Your task to perform on an android device: delete browsing data in the chrome app Image 0: 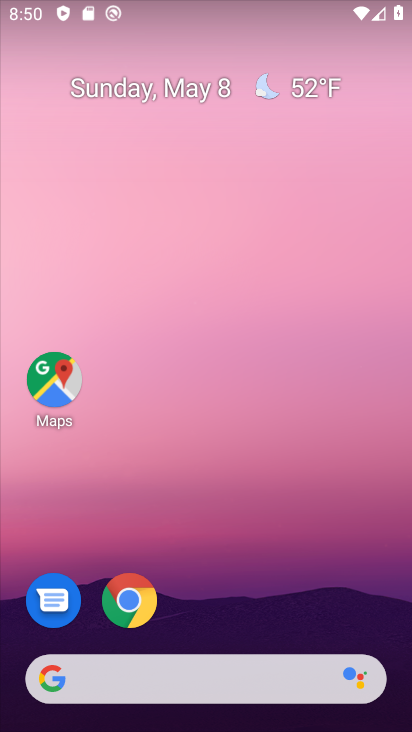
Step 0: press home button
Your task to perform on an android device: delete browsing data in the chrome app Image 1: 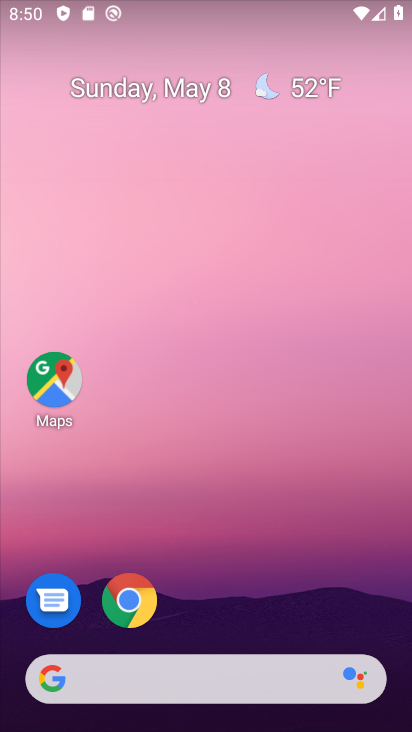
Step 1: click (131, 616)
Your task to perform on an android device: delete browsing data in the chrome app Image 2: 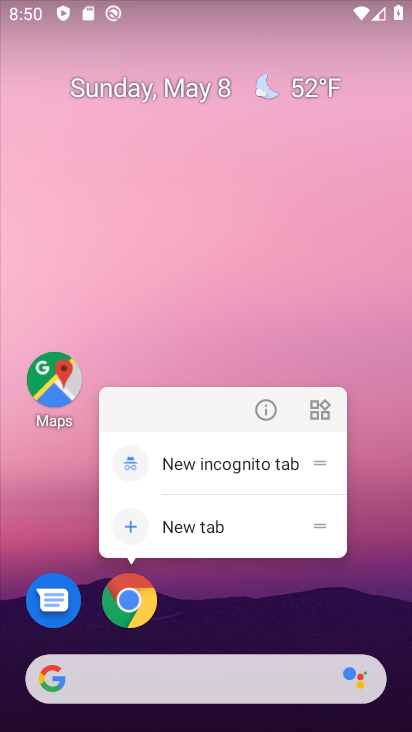
Step 2: click (134, 605)
Your task to perform on an android device: delete browsing data in the chrome app Image 3: 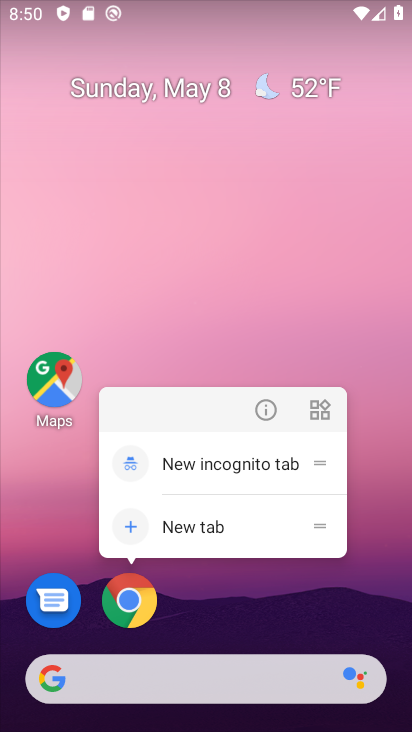
Step 3: click (129, 617)
Your task to perform on an android device: delete browsing data in the chrome app Image 4: 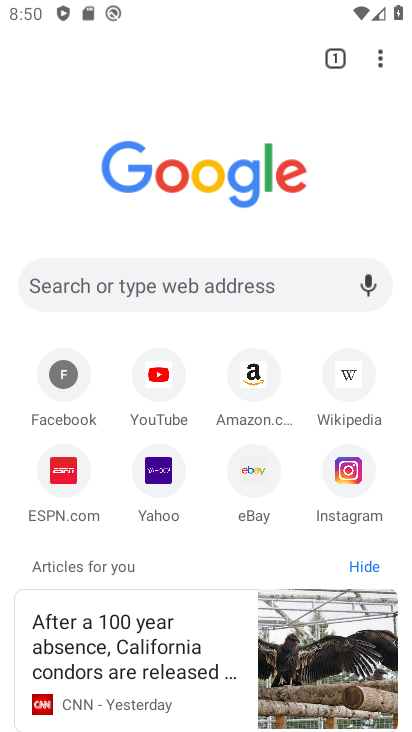
Step 4: drag from (381, 60) to (246, 339)
Your task to perform on an android device: delete browsing data in the chrome app Image 5: 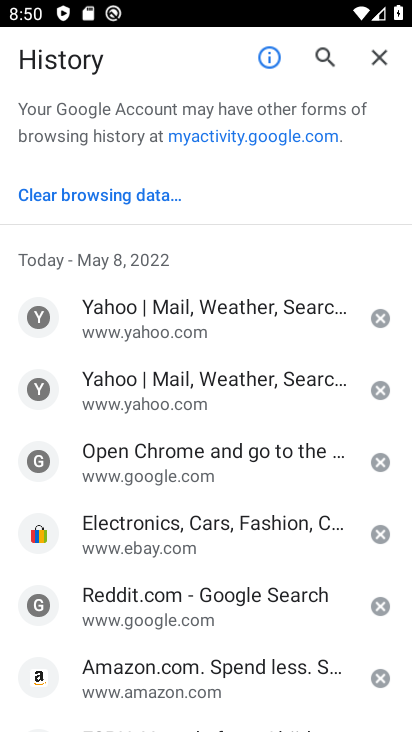
Step 5: click (140, 201)
Your task to perform on an android device: delete browsing data in the chrome app Image 6: 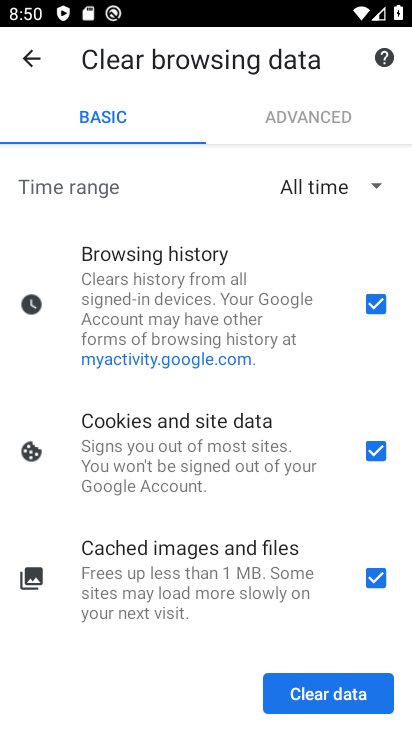
Step 6: click (370, 463)
Your task to perform on an android device: delete browsing data in the chrome app Image 7: 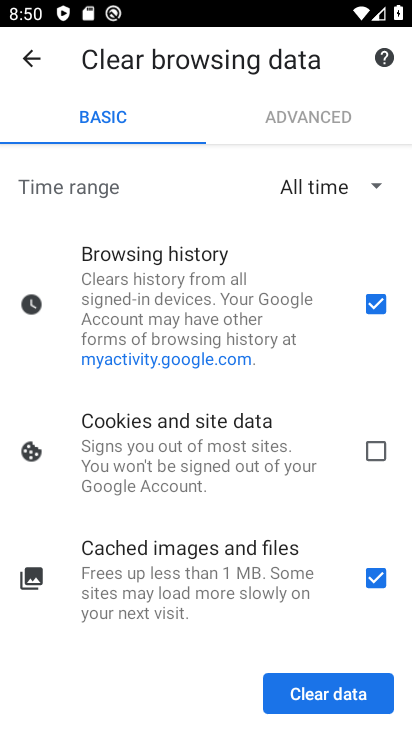
Step 7: click (370, 581)
Your task to perform on an android device: delete browsing data in the chrome app Image 8: 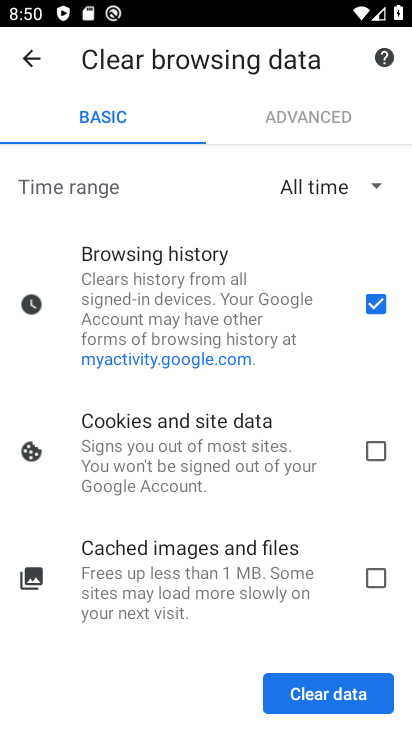
Step 8: click (352, 701)
Your task to perform on an android device: delete browsing data in the chrome app Image 9: 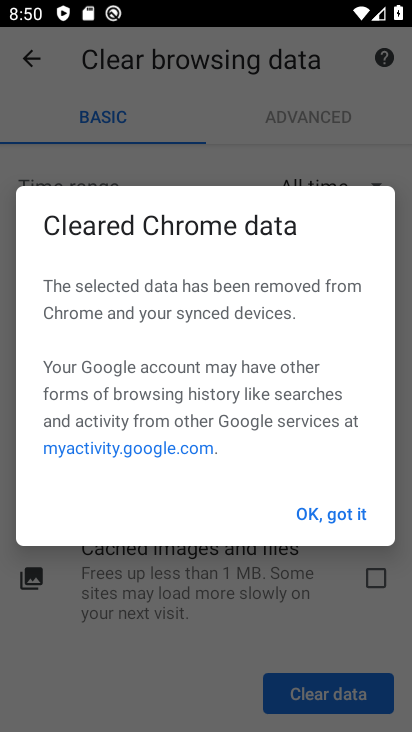
Step 9: click (359, 524)
Your task to perform on an android device: delete browsing data in the chrome app Image 10: 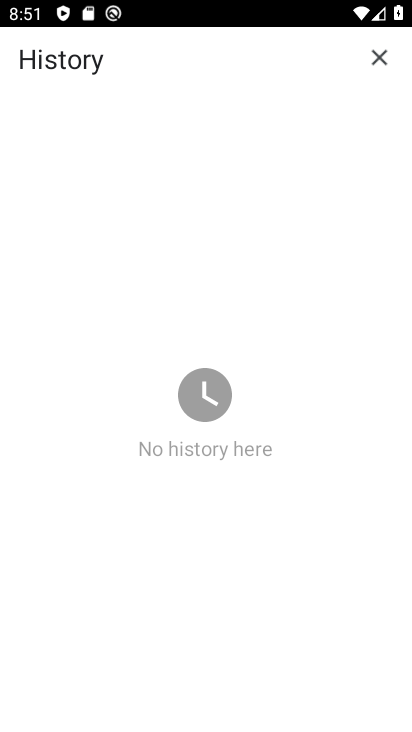
Step 10: task complete